Your task to perform on an android device: find snoozed emails in the gmail app Image 0: 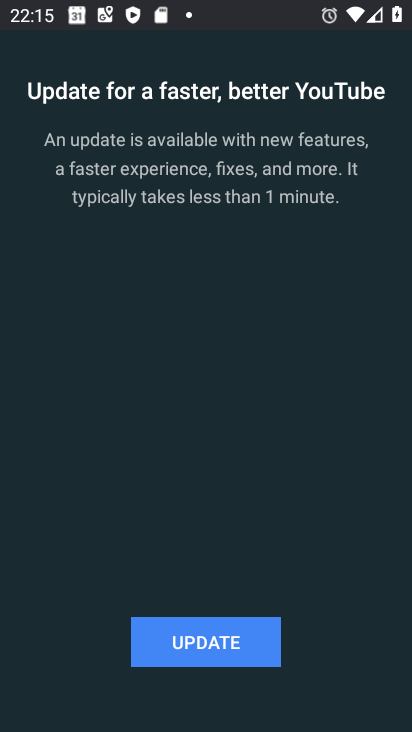
Step 0: press home button
Your task to perform on an android device: find snoozed emails in the gmail app Image 1: 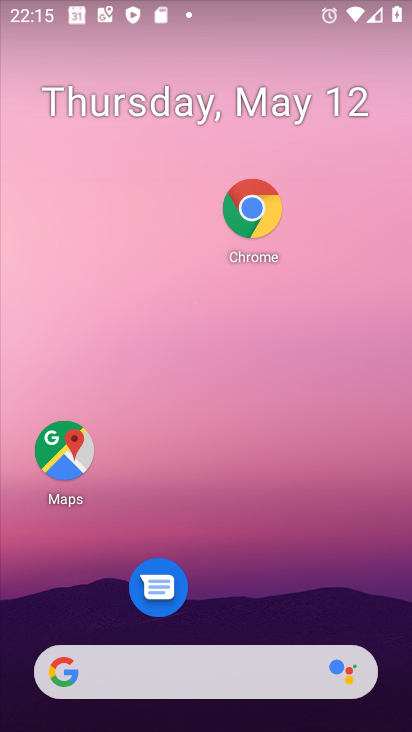
Step 1: drag from (265, 617) to (266, 204)
Your task to perform on an android device: find snoozed emails in the gmail app Image 2: 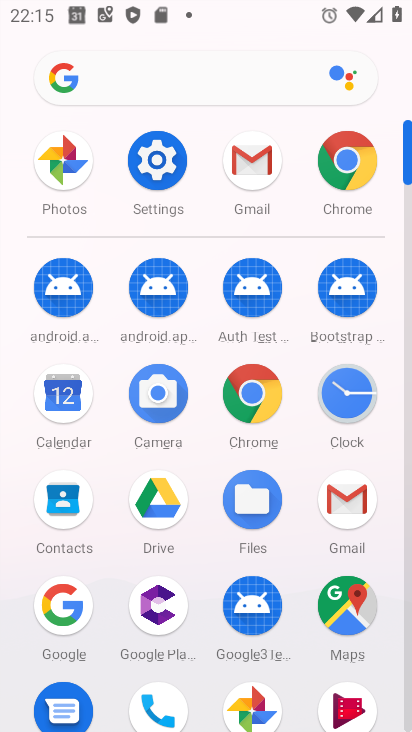
Step 2: click (344, 495)
Your task to perform on an android device: find snoozed emails in the gmail app Image 3: 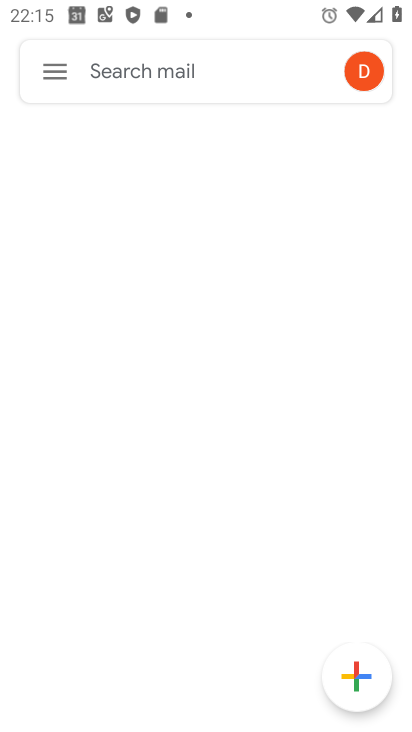
Step 3: click (46, 67)
Your task to perform on an android device: find snoozed emails in the gmail app Image 4: 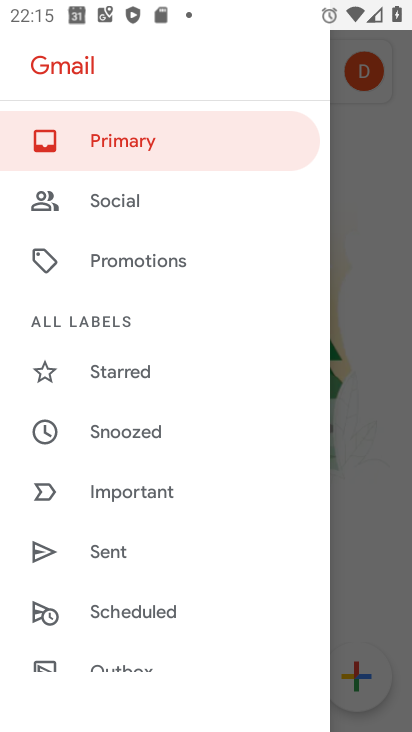
Step 4: click (143, 433)
Your task to perform on an android device: find snoozed emails in the gmail app Image 5: 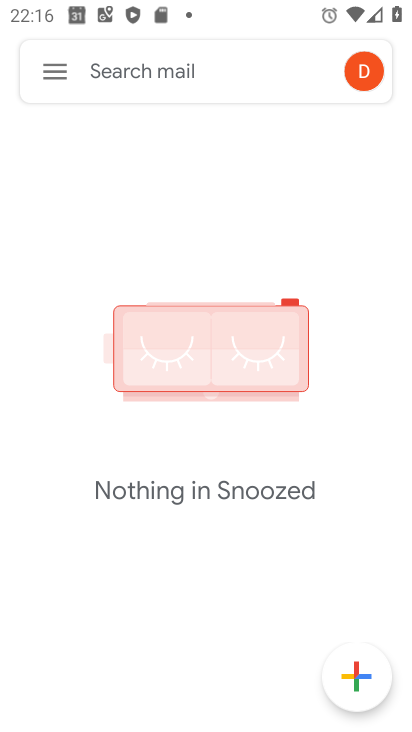
Step 5: task complete